Your task to perform on an android device: toggle show notifications on the lock screen Image 0: 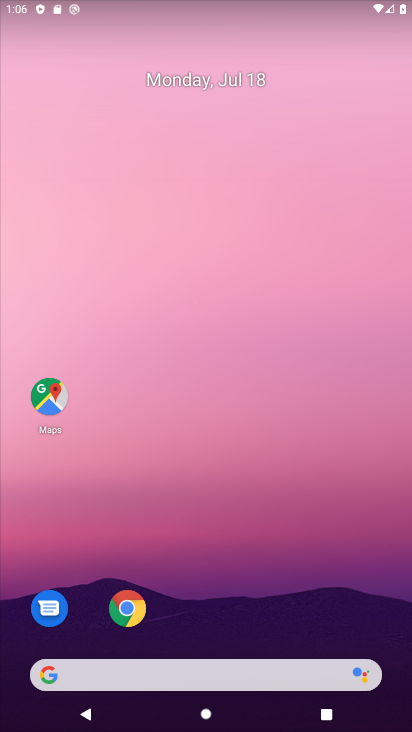
Step 0: drag from (248, 722) to (247, 108)
Your task to perform on an android device: toggle show notifications on the lock screen Image 1: 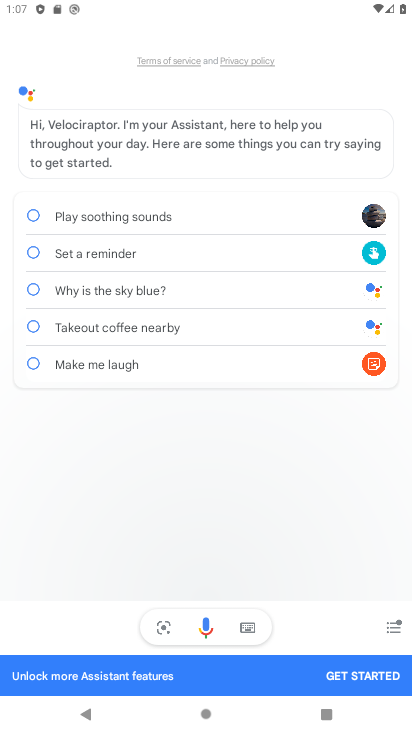
Step 1: press home button
Your task to perform on an android device: toggle show notifications on the lock screen Image 2: 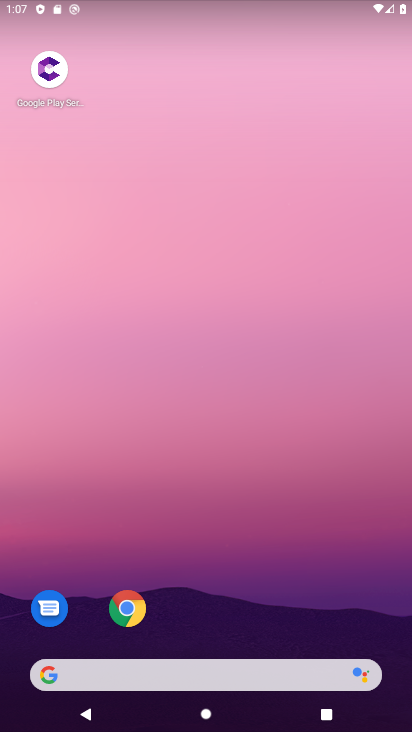
Step 2: drag from (237, 615) to (233, 108)
Your task to perform on an android device: toggle show notifications on the lock screen Image 3: 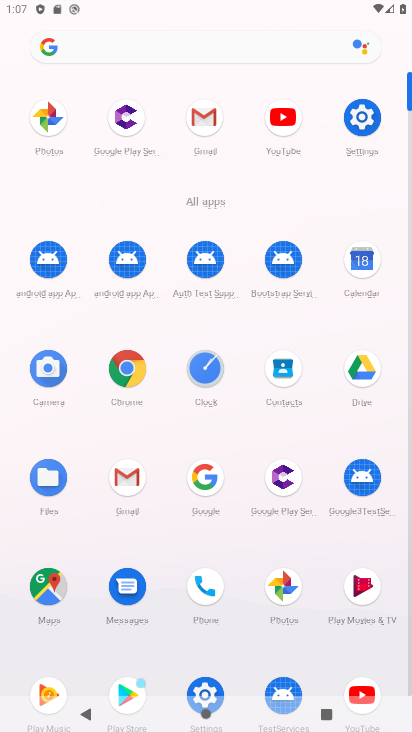
Step 3: click (366, 118)
Your task to perform on an android device: toggle show notifications on the lock screen Image 4: 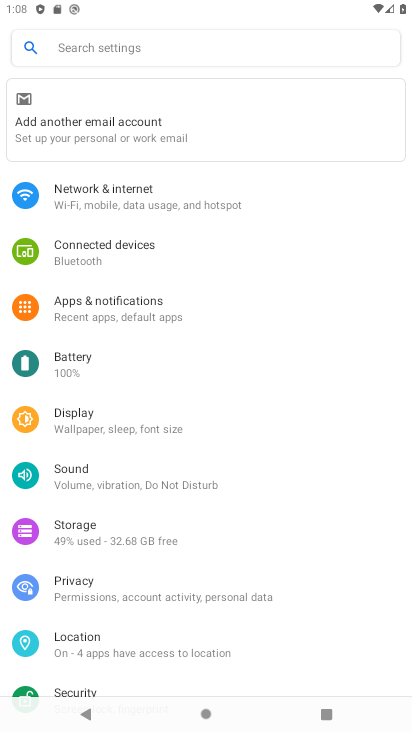
Step 4: click (94, 308)
Your task to perform on an android device: toggle show notifications on the lock screen Image 5: 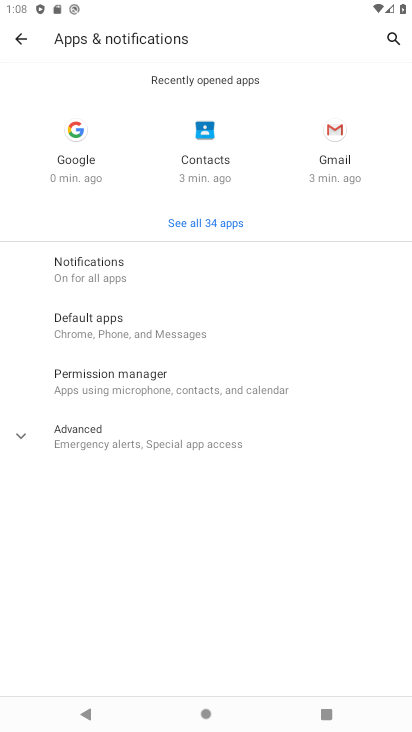
Step 5: click (81, 270)
Your task to perform on an android device: toggle show notifications on the lock screen Image 6: 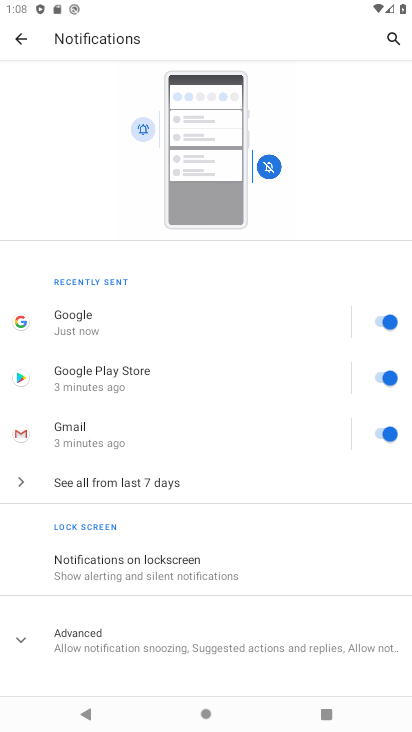
Step 6: click (115, 566)
Your task to perform on an android device: toggle show notifications on the lock screen Image 7: 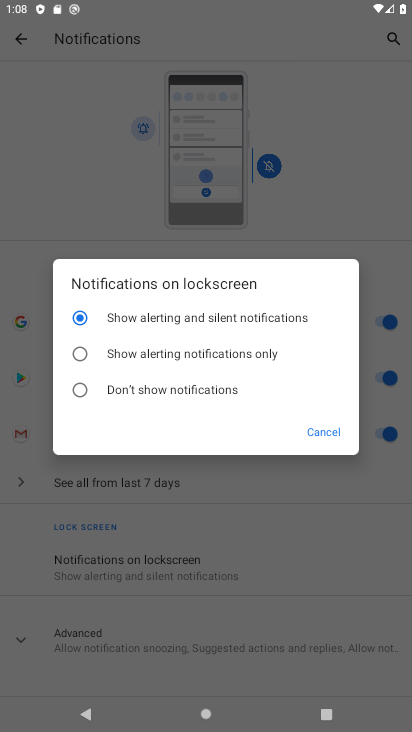
Step 7: click (75, 347)
Your task to perform on an android device: toggle show notifications on the lock screen Image 8: 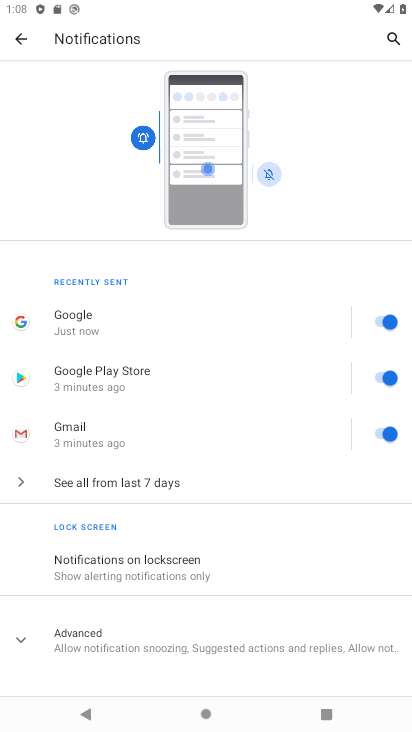
Step 8: task complete